Your task to perform on an android device: install app "The Home Depot" Image 0: 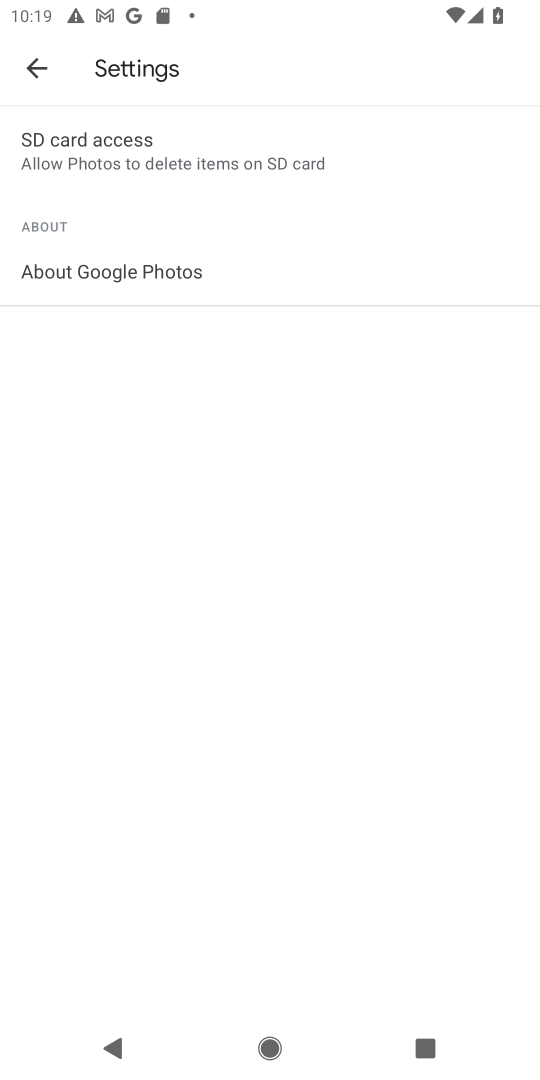
Step 0: press home button
Your task to perform on an android device: install app "The Home Depot" Image 1: 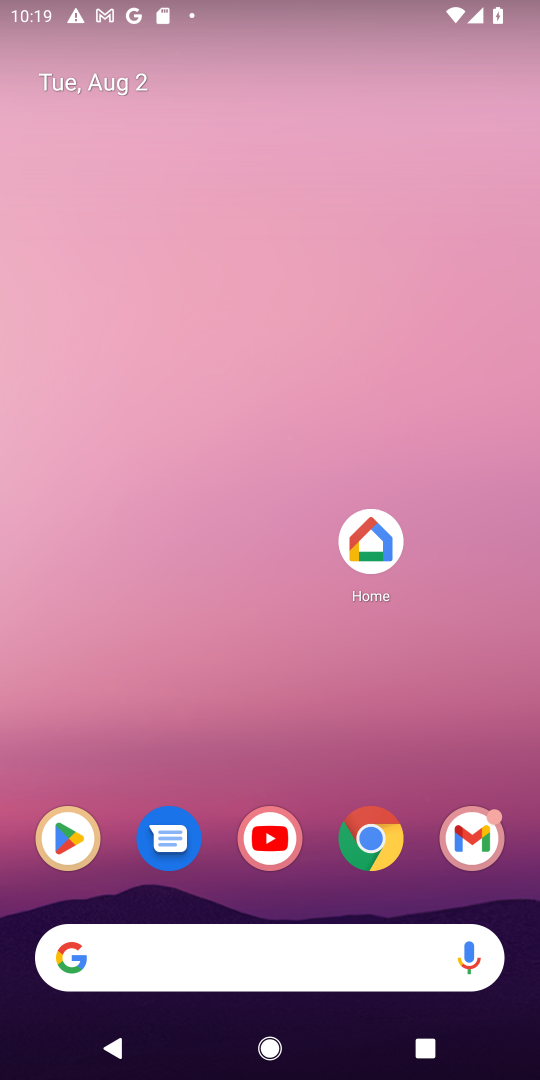
Step 1: drag from (217, 789) to (226, 121)
Your task to perform on an android device: install app "The Home Depot" Image 2: 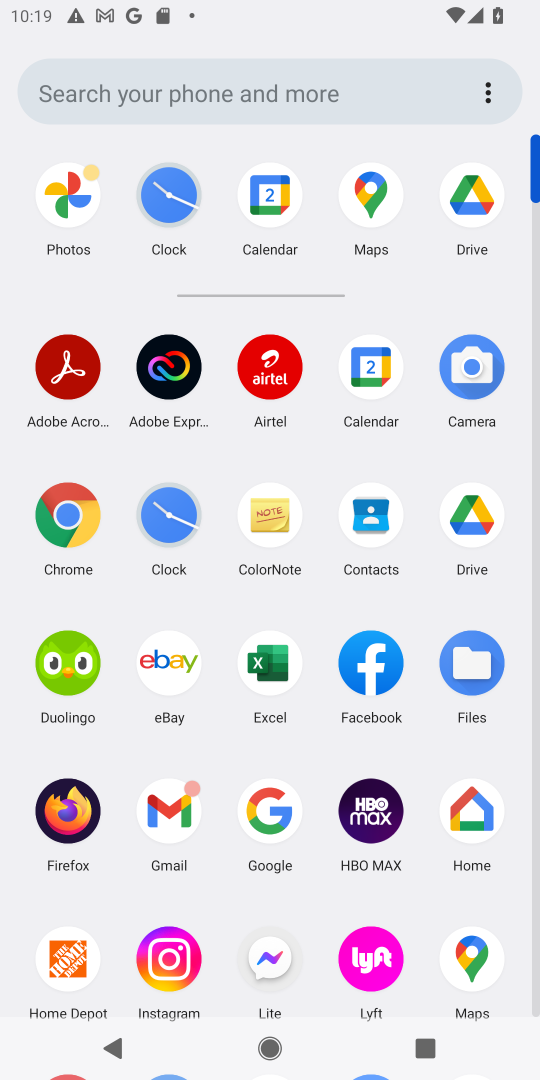
Step 2: drag from (302, 920) to (323, 520)
Your task to perform on an android device: install app "The Home Depot" Image 3: 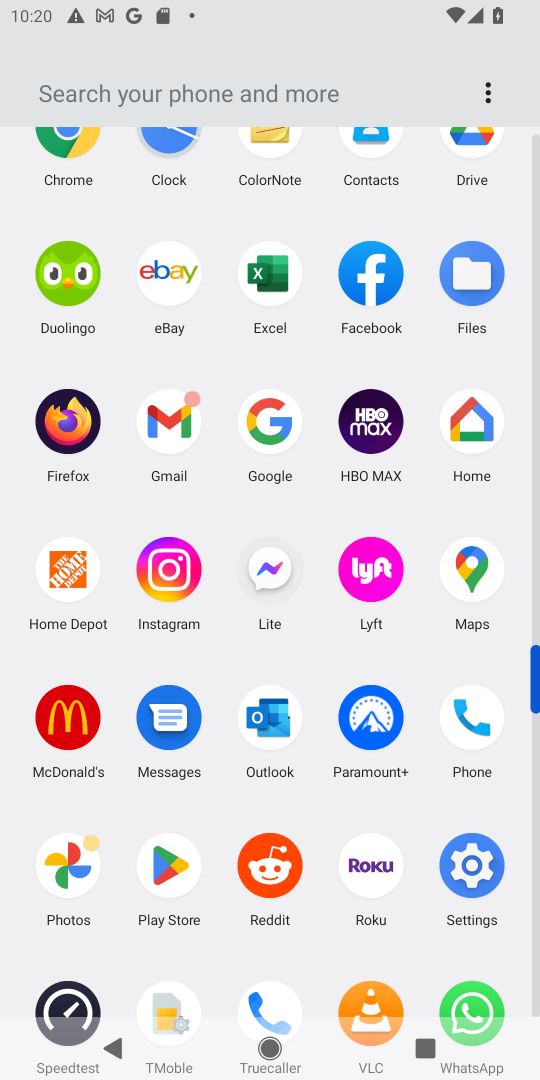
Step 3: click (170, 875)
Your task to perform on an android device: install app "The Home Depot" Image 4: 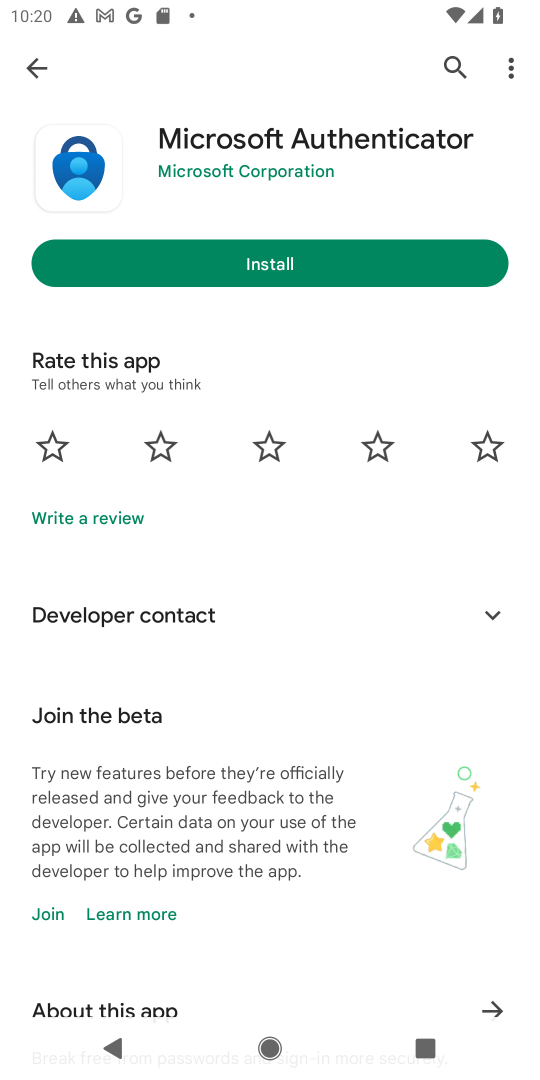
Step 4: click (447, 62)
Your task to perform on an android device: install app "The Home Depot" Image 5: 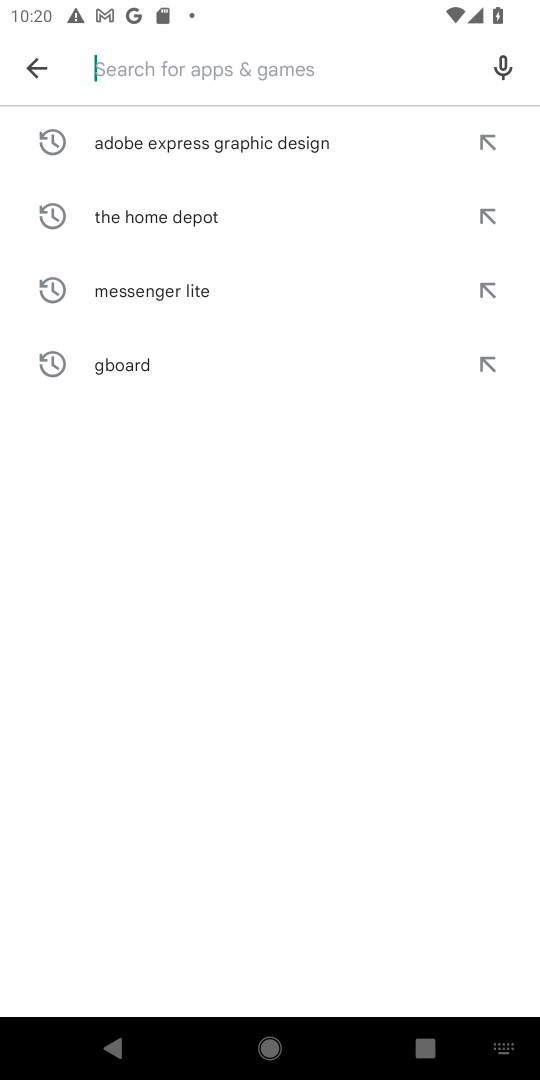
Step 5: click (332, 75)
Your task to perform on an android device: install app "The Home Depot" Image 6: 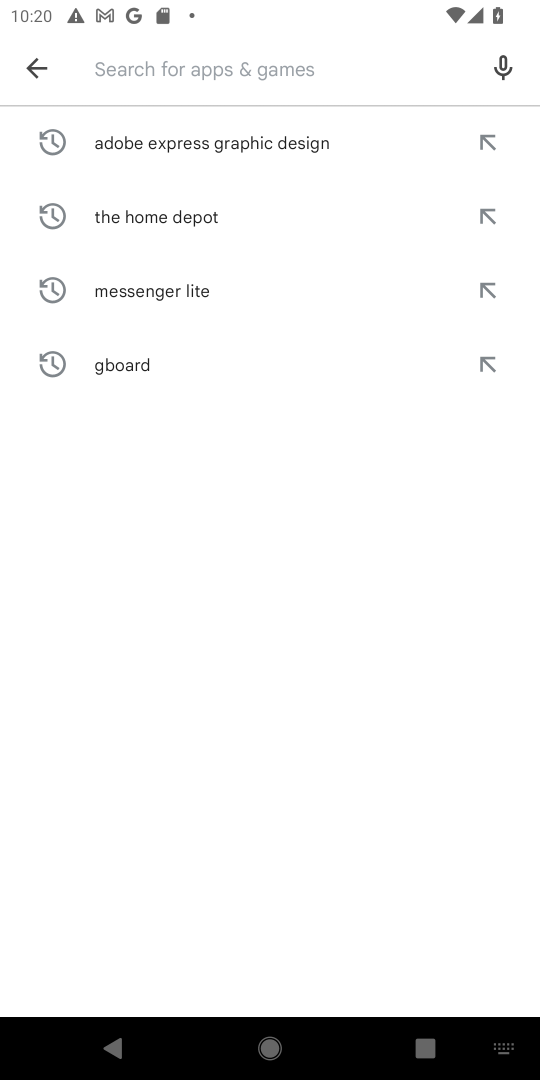
Step 6: type "the home depot "
Your task to perform on an android device: install app "The Home Depot" Image 7: 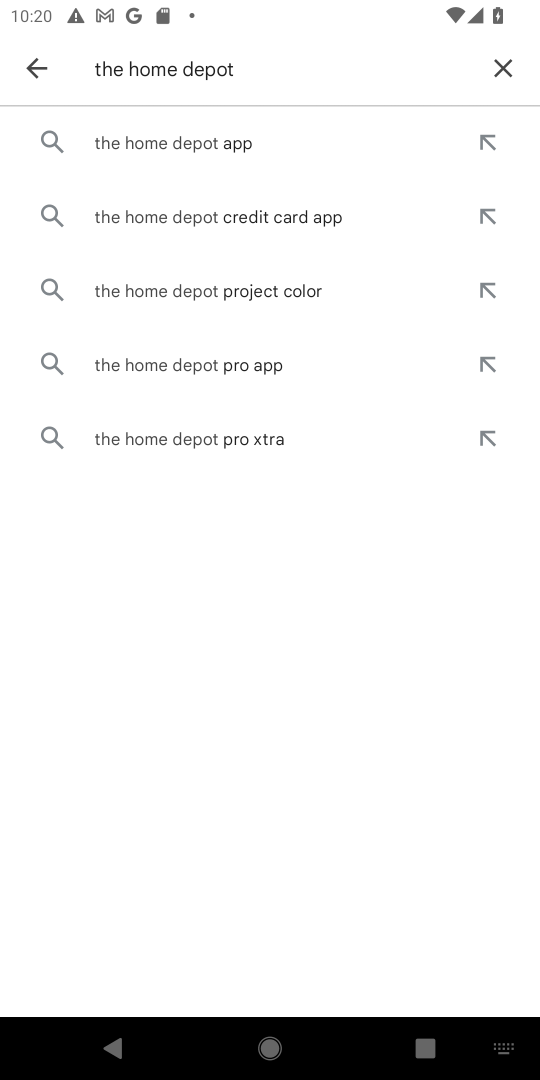
Step 7: click (303, 147)
Your task to perform on an android device: install app "The Home Depot" Image 8: 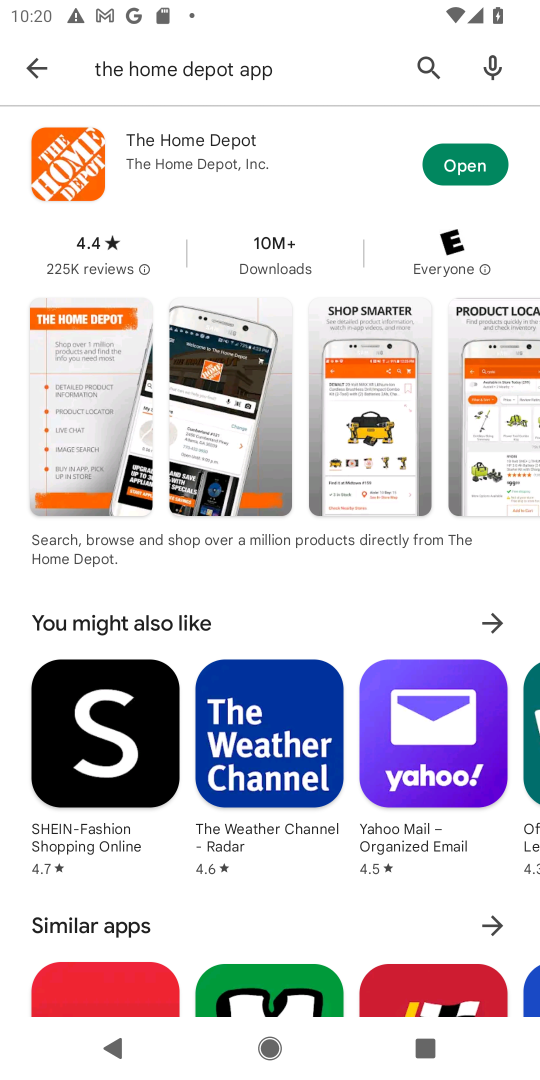
Step 8: task complete